Your task to perform on an android device: clear all cookies in the chrome app Image 0: 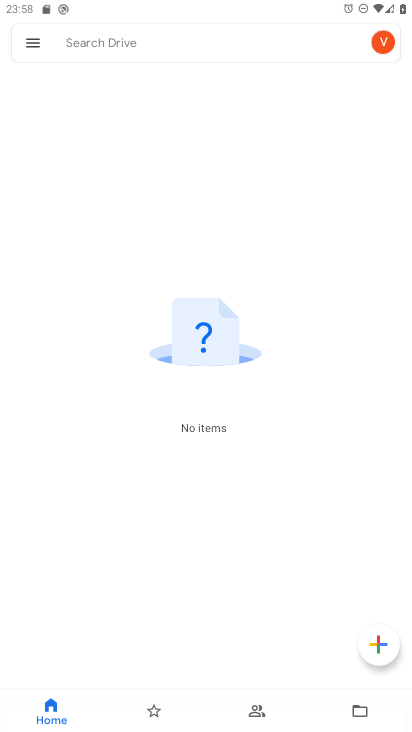
Step 0: press home button
Your task to perform on an android device: clear all cookies in the chrome app Image 1: 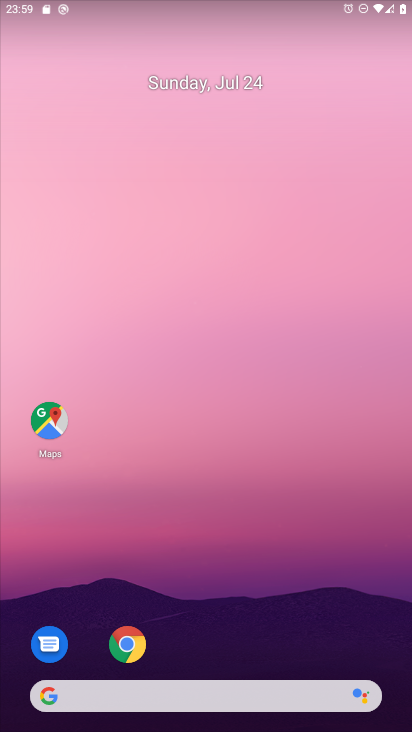
Step 1: click (127, 645)
Your task to perform on an android device: clear all cookies in the chrome app Image 2: 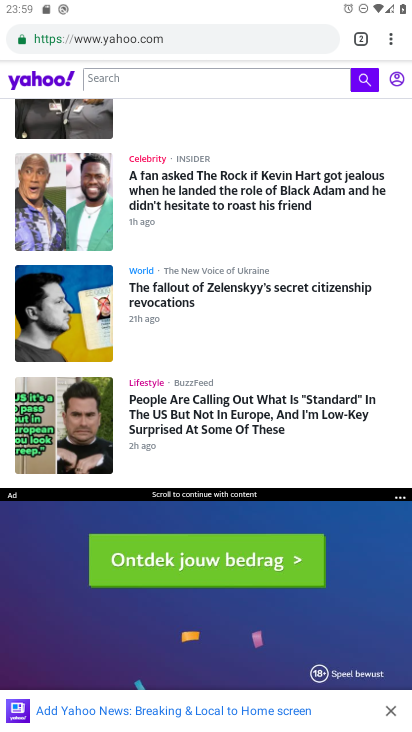
Step 2: click (389, 41)
Your task to perform on an android device: clear all cookies in the chrome app Image 3: 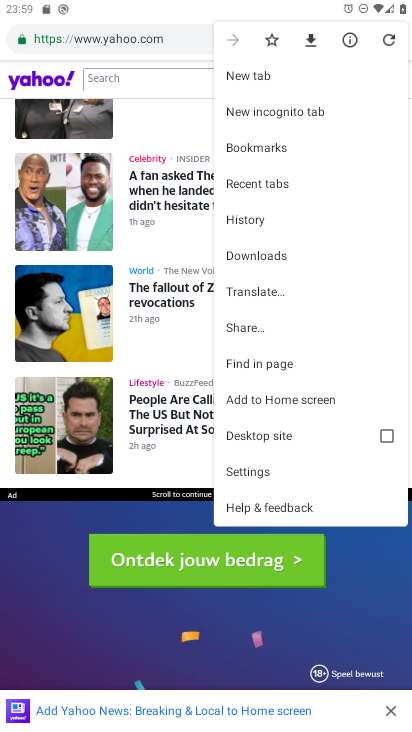
Step 3: click (247, 214)
Your task to perform on an android device: clear all cookies in the chrome app Image 4: 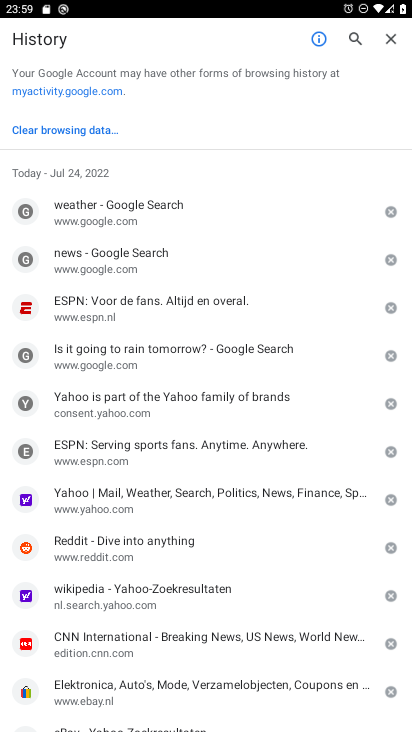
Step 4: click (78, 128)
Your task to perform on an android device: clear all cookies in the chrome app Image 5: 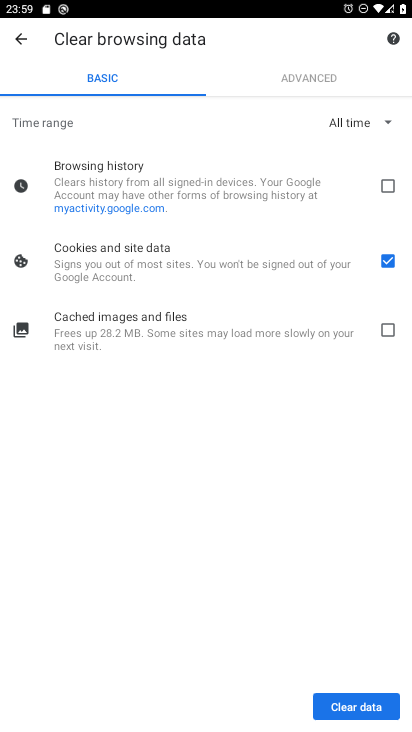
Step 5: click (356, 702)
Your task to perform on an android device: clear all cookies in the chrome app Image 6: 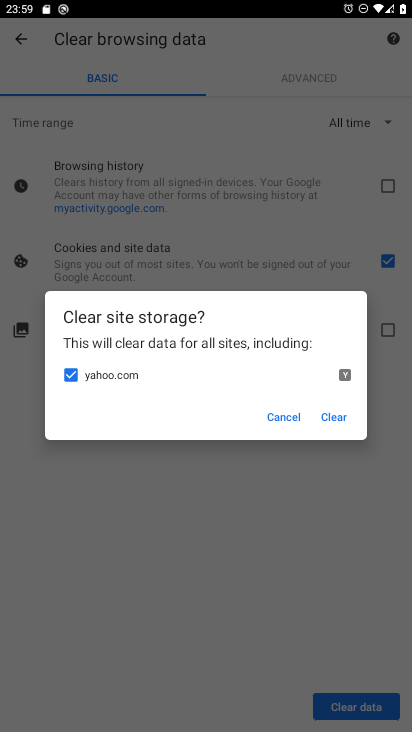
Step 6: click (328, 415)
Your task to perform on an android device: clear all cookies in the chrome app Image 7: 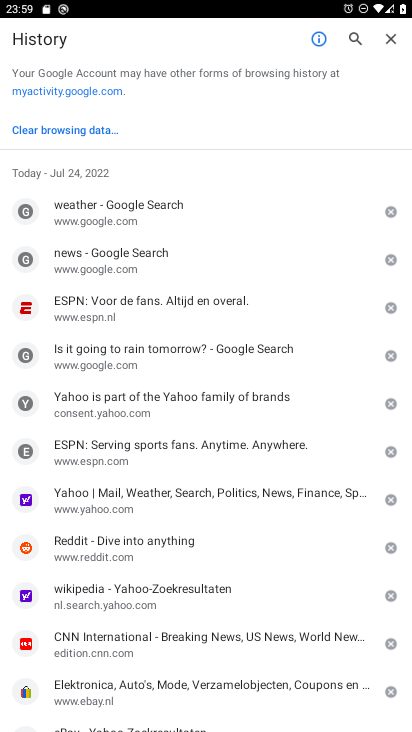
Step 7: task complete